Your task to perform on an android device: Is it going to rain today? Image 0: 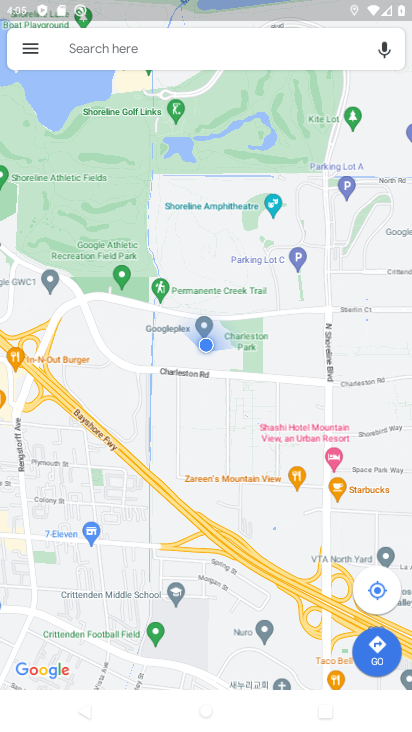
Step 0: press home button
Your task to perform on an android device: Is it going to rain today? Image 1: 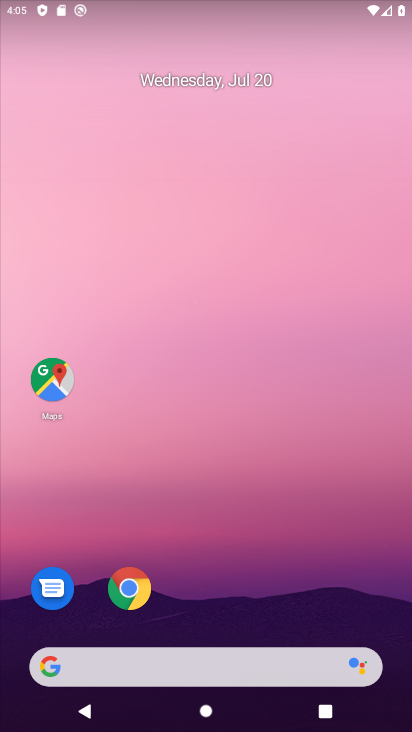
Step 1: click (188, 654)
Your task to perform on an android device: Is it going to rain today? Image 2: 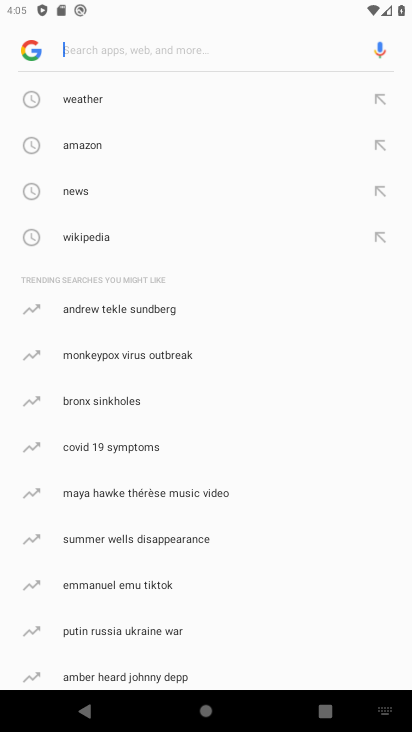
Step 2: click (108, 90)
Your task to perform on an android device: Is it going to rain today? Image 3: 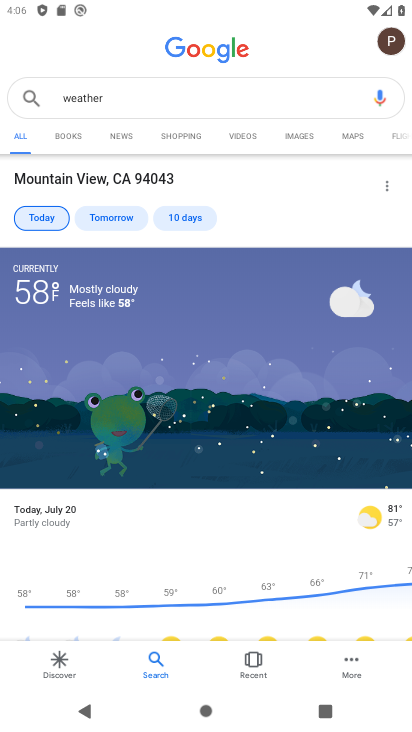
Step 3: task complete